Your task to perform on an android device: turn off sleep mode Image 0: 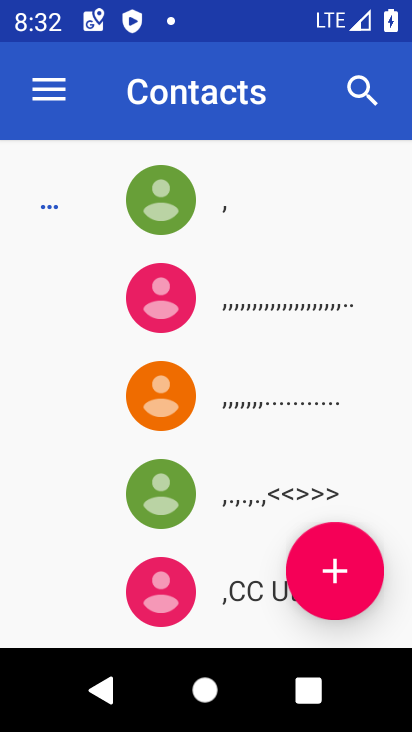
Step 0: press home button
Your task to perform on an android device: turn off sleep mode Image 1: 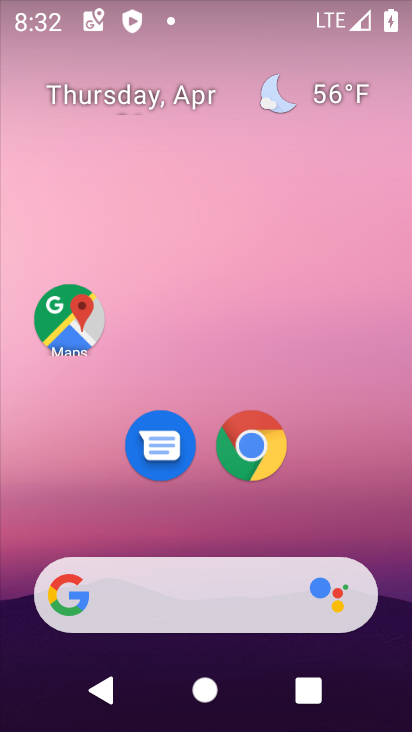
Step 1: drag from (363, 527) to (285, 9)
Your task to perform on an android device: turn off sleep mode Image 2: 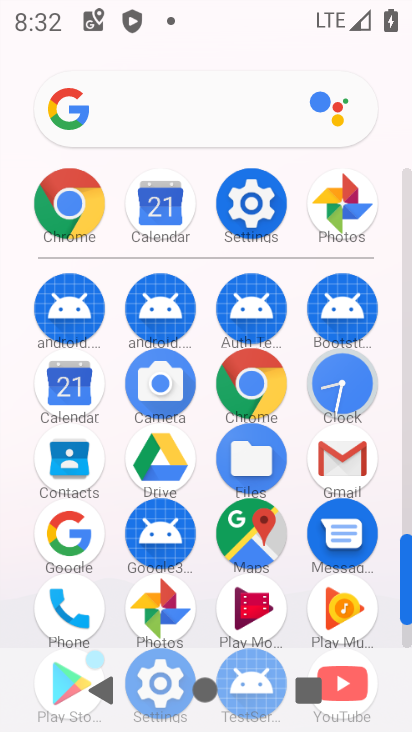
Step 2: click (243, 202)
Your task to perform on an android device: turn off sleep mode Image 3: 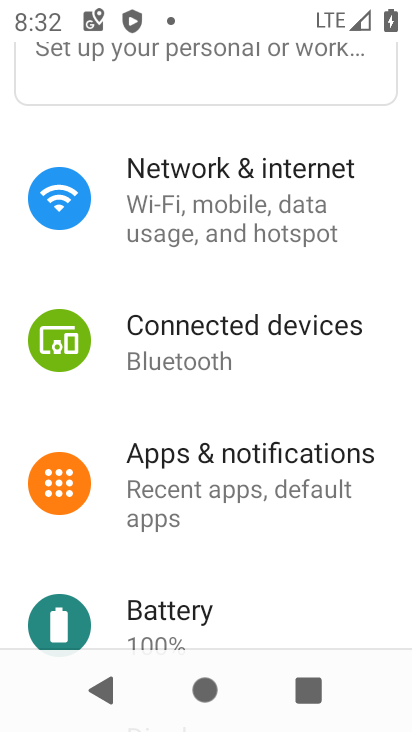
Step 3: drag from (330, 594) to (297, 265)
Your task to perform on an android device: turn off sleep mode Image 4: 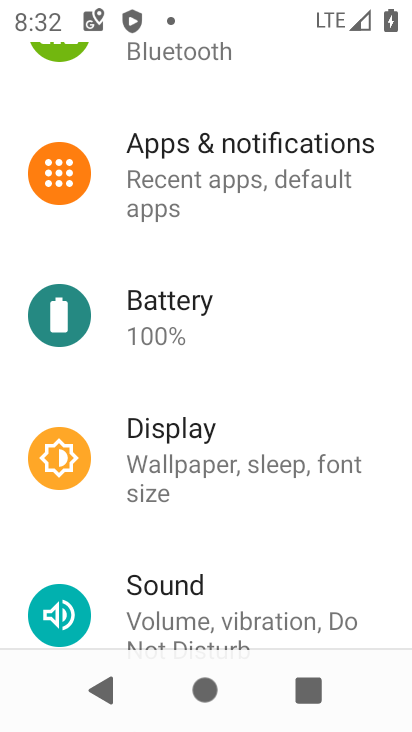
Step 4: click (163, 450)
Your task to perform on an android device: turn off sleep mode Image 5: 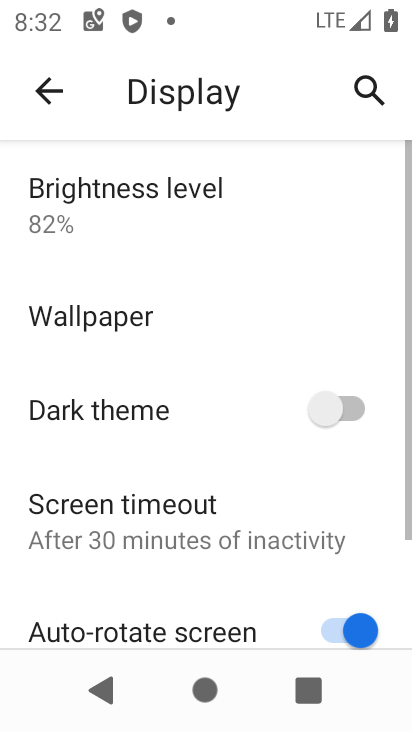
Step 5: drag from (150, 504) to (145, 98)
Your task to perform on an android device: turn off sleep mode Image 6: 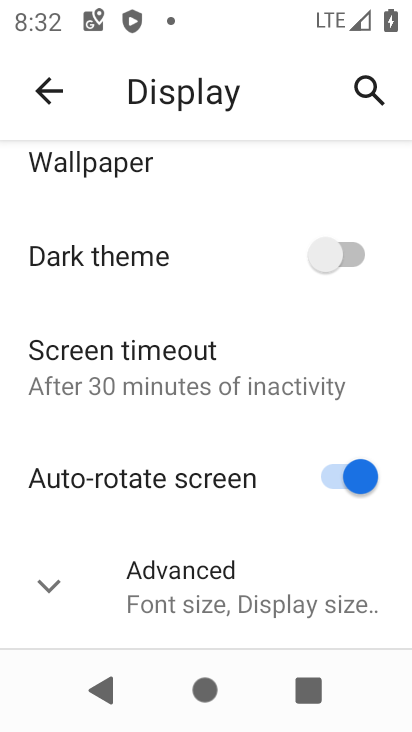
Step 6: click (54, 598)
Your task to perform on an android device: turn off sleep mode Image 7: 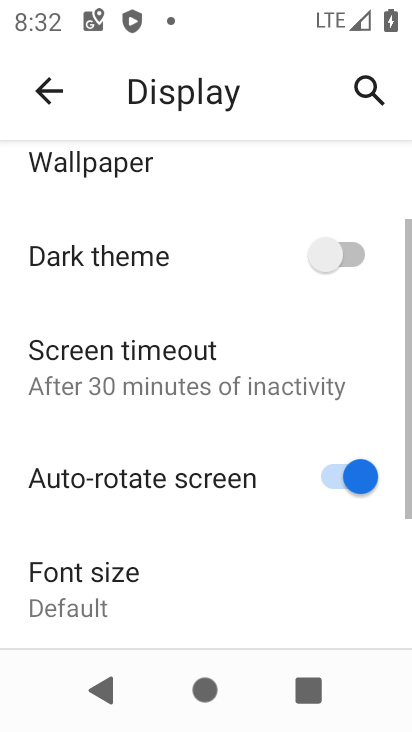
Step 7: task complete